Your task to perform on an android device: open chrome and create a bookmark for the current page Image 0: 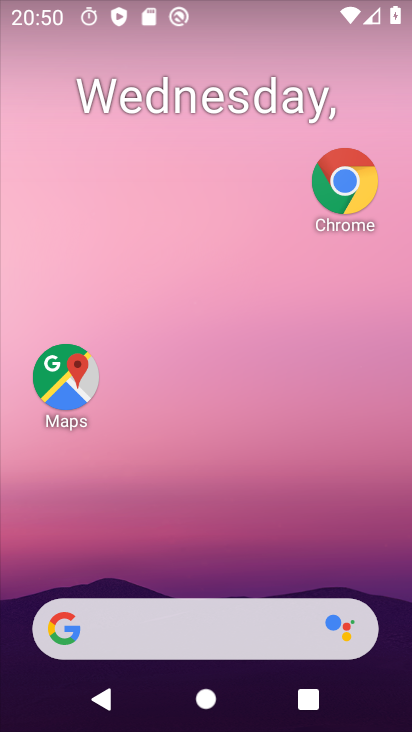
Step 0: drag from (268, 660) to (410, 335)
Your task to perform on an android device: open chrome and create a bookmark for the current page Image 1: 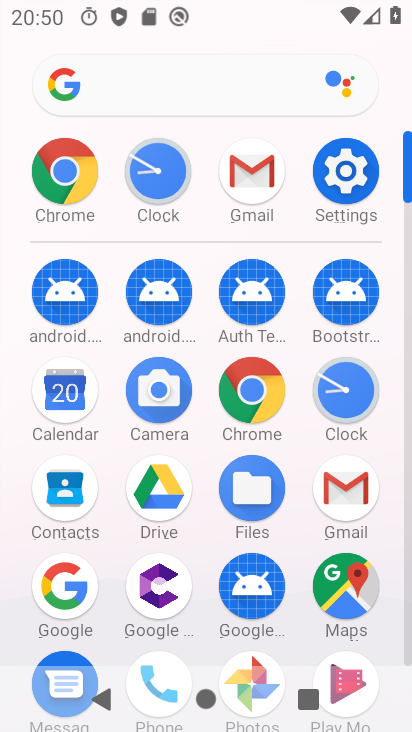
Step 1: click (50, 190)
Your task to perform on an android device: open chrome and create a bookmark for the current page Image 2: 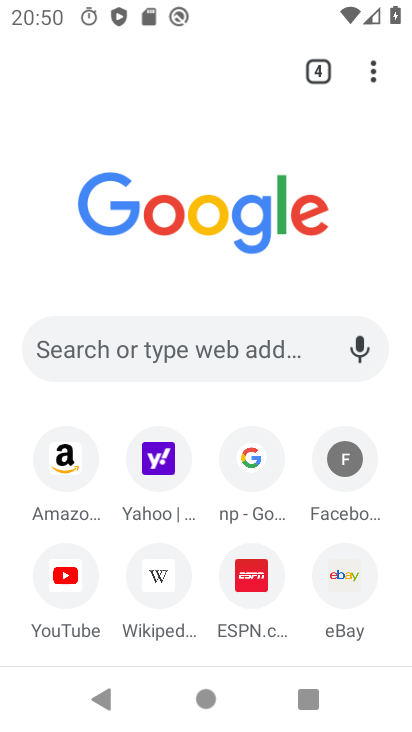
Step 2: click (377, 78)
Your task to perform on an android device: open chrome and create a bookmark for the current page Image 3: 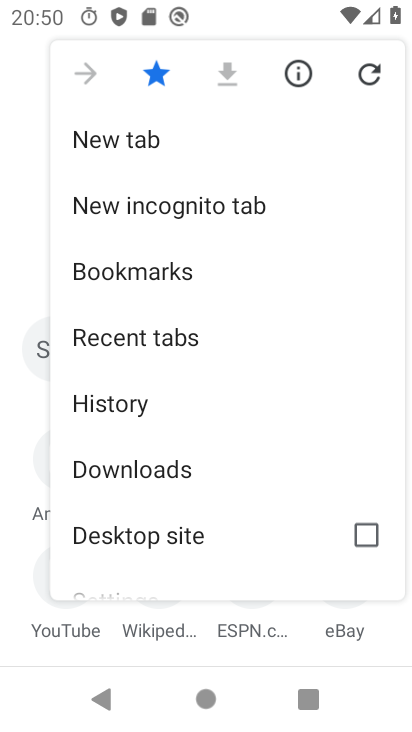
Step 3: click (168, 270)
Your task to perform on an android device: open chrome and create a bookmark for the current page Image 4: 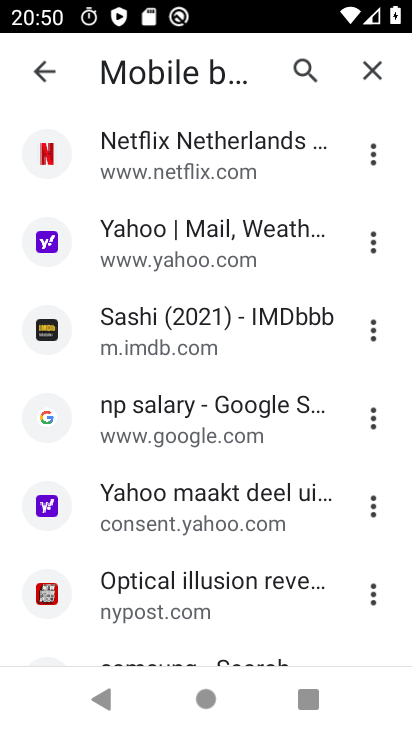
Step 4: task complete